Your task to perform on an android device: Go to Amazon Image 0: 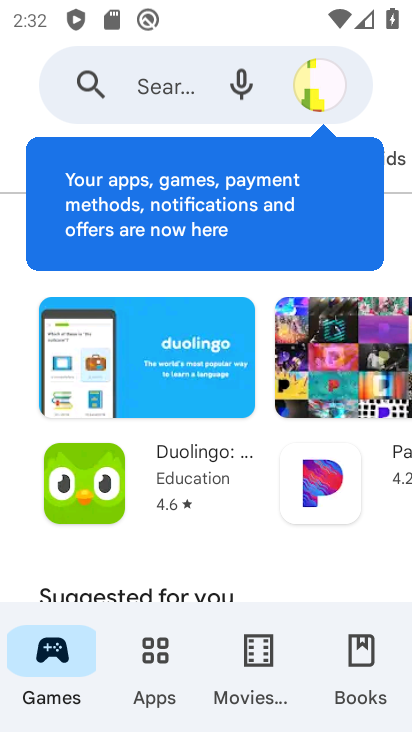
Step 0: press home button
Your task to perform on an android device: Go to Amazon Image 1: 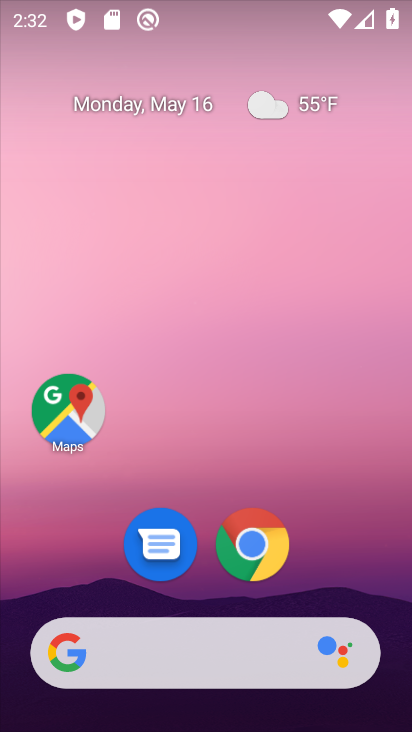
Step 1: click (283, 534)
Your task to perform on an android device: Go to Amazon Image 2: 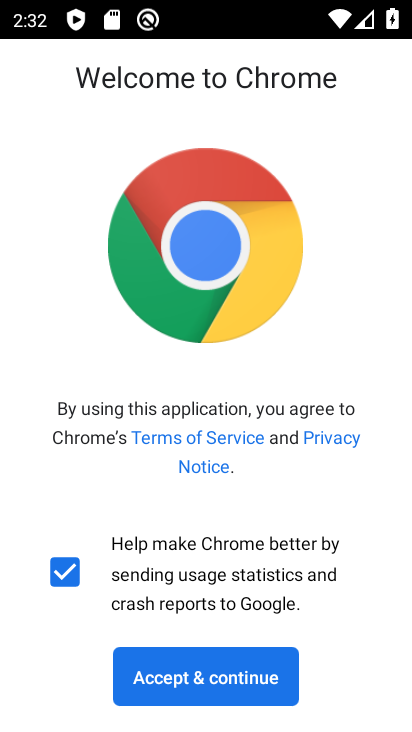
Step 2: click (246, 692)
Your task to perform on an android device: Go to Amazon Image 3: 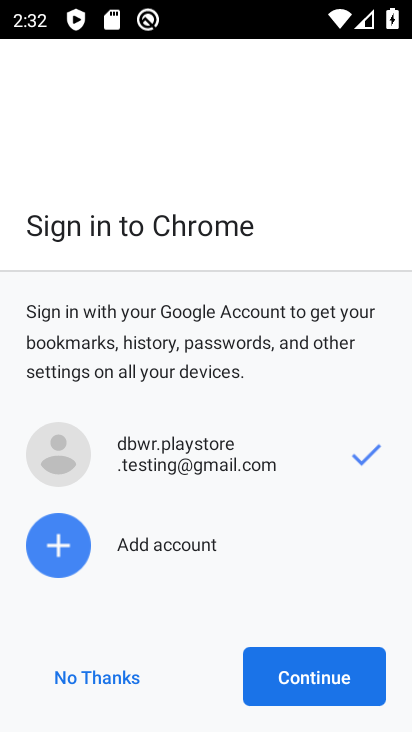
Step 3: click (128, 677)
Your task to perform on an android device: Go to Amazon Image 4: 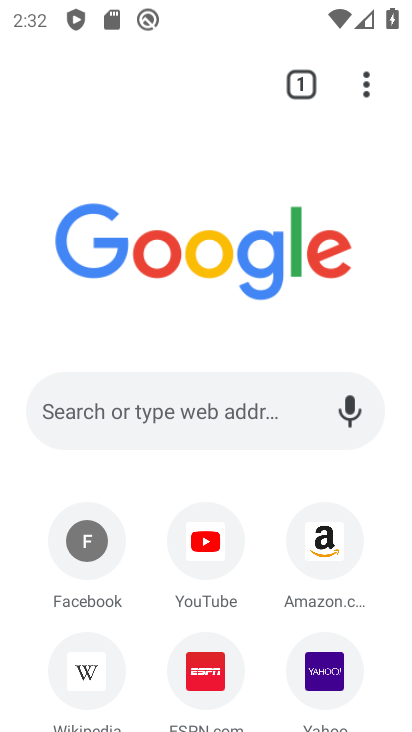
Step 4: click (331, 530)
Your task to perform on an android device: Go to Amazon Image 5: 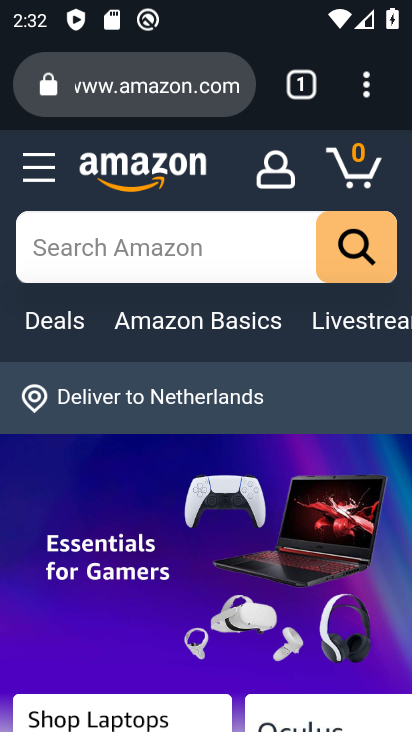
Step 5: task complete